Your task to perform on an android device: turn notification dots on Image 0: 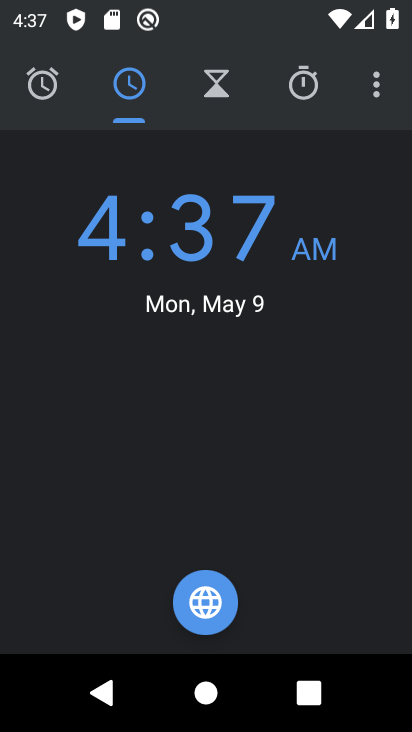
Step 0: press back button
Your task to perform on an android device: turn notification dots on Image 1: 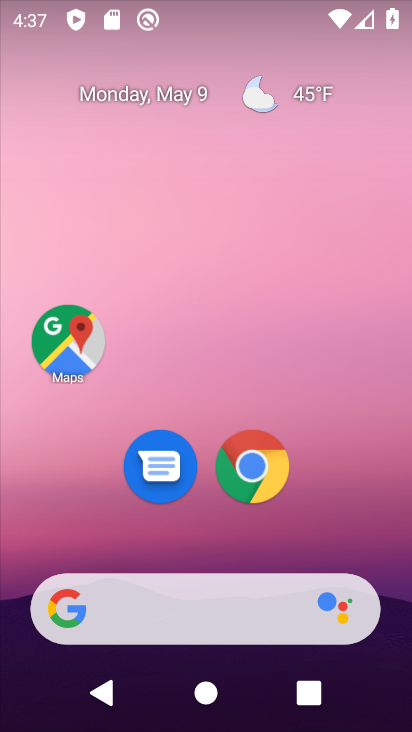
Step 1: drag from (332, 541) to (277, 0)
Your task to perform on an android device: turn notification dots on Image 2: 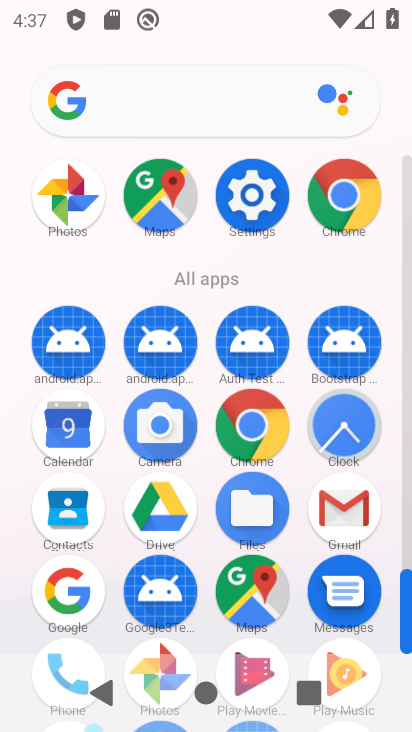
Step 2: click (256, 190)
Your task to perform on an android device: turn notification dots on Image 3: 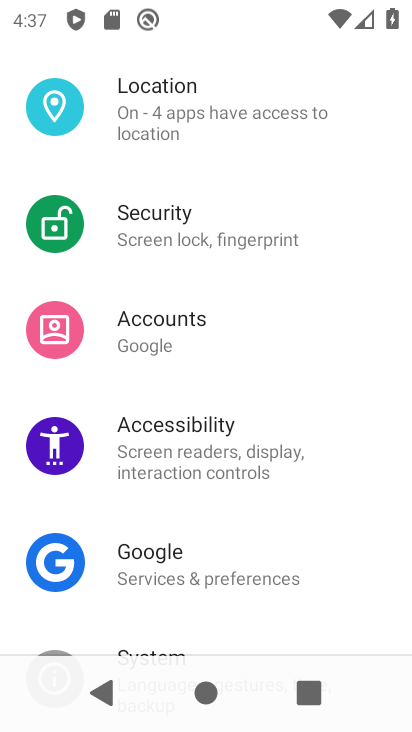
Step 3: drag from (307, 247) to (316, 635)
Your task to perform on an android device: turn notification dots on Image 4: 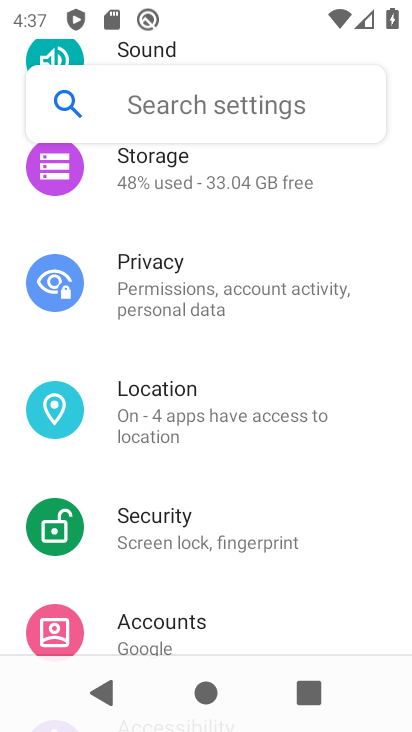
Step 4: drag from (303, 257) to (304, 587)
Your task to perform on an android device: turn notification dots on Image 5: 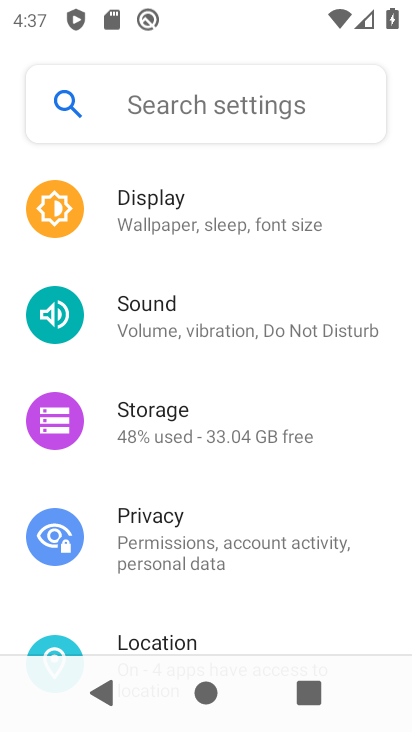
Step 5: drag from (293, 342) to (279, 650)
Your task to perform on an android device: turn notification dots on Image 6: 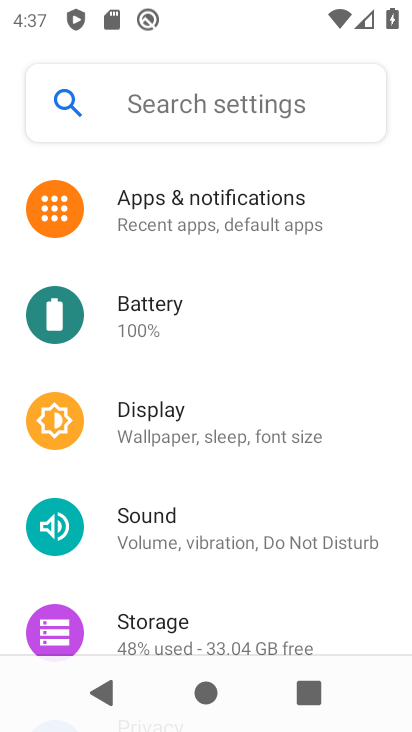
Step 6: click (230, 229)
Your task to perform on an android device: turn notification dots on Image 7: 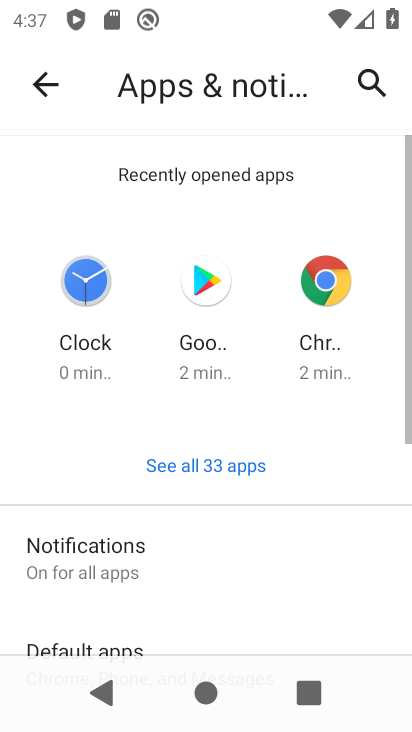
Step 7: drag from (231, 551) to (251, 152)
Your task to perform on an android device: turn notification dots on Image 8: 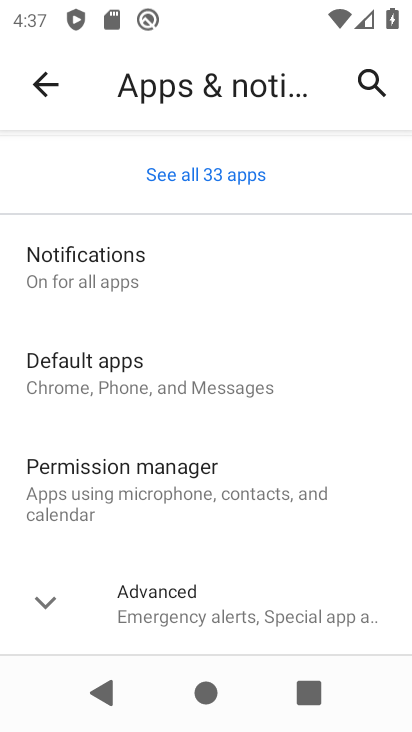
Step 8: click (53, 594)
Your task to perform on an android device: turn notification dots on Image 9: 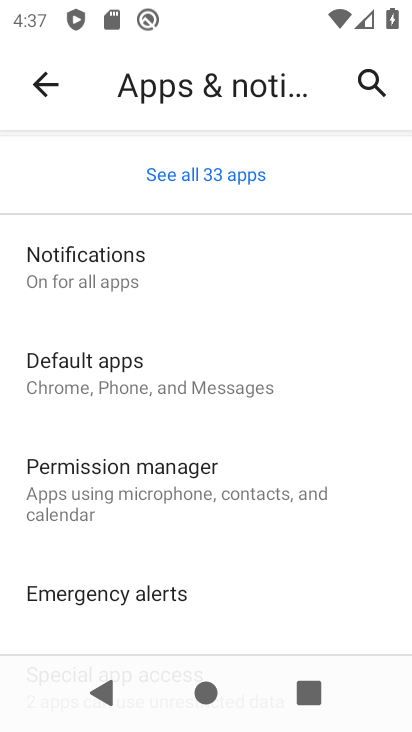
Step 9: click (156, 286)
Your task to perform on an android device: turn notification dots on Image 10: 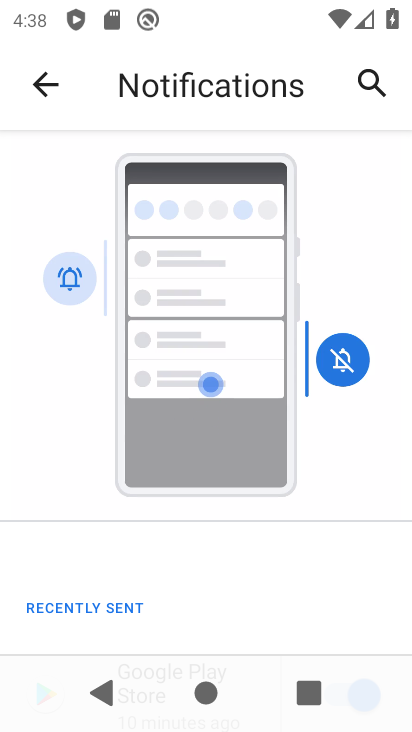
Step 10: drag from (191, 534) to (192, 104)
Your task to perform on an android device: turn notification dots on Image 11: 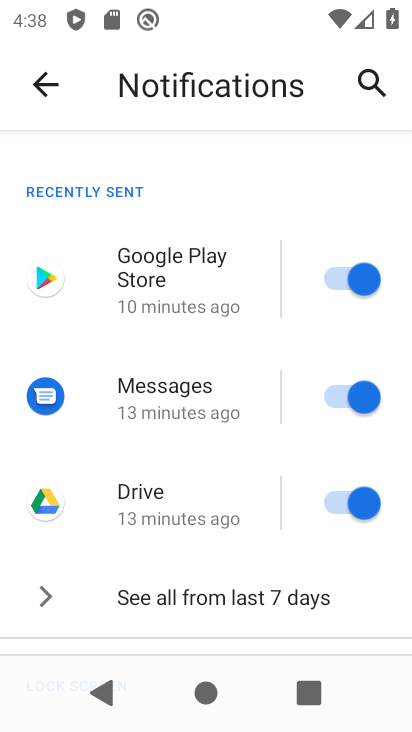
Step 11: drag from (171, 558) to (171, 153)
Your task to perform on an android device: turn notification dots on Image 12: 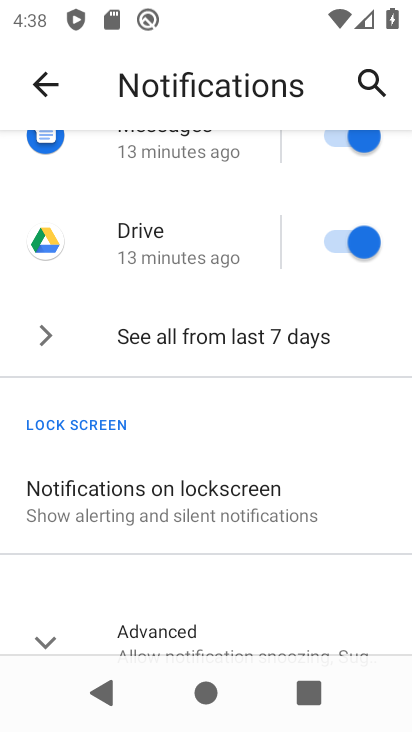
Step 12: drag from (151, 598) to (206, 121)
Your task to perform on an android device: turn notification dots on Image 13: 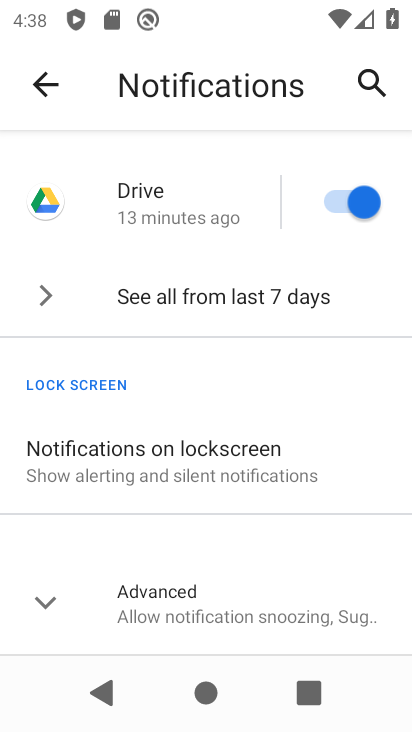
Step 13: click (152, 579)
Your task to perform on an android device: turn notification dots on Image 14: 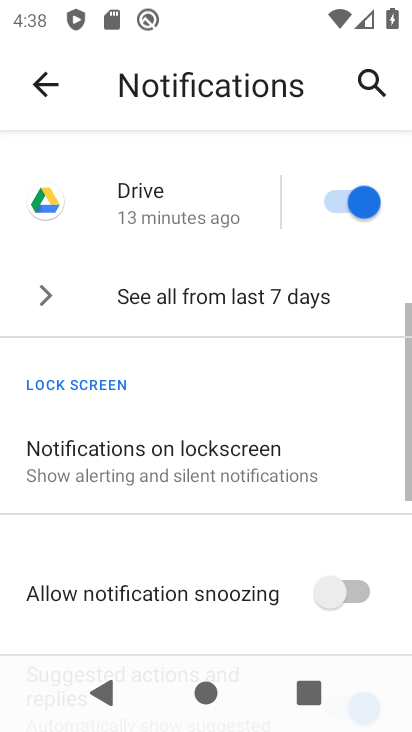
Step 14: task complete